Your task to perform on an android device: stop showing notifications on the lock screen Image 0: 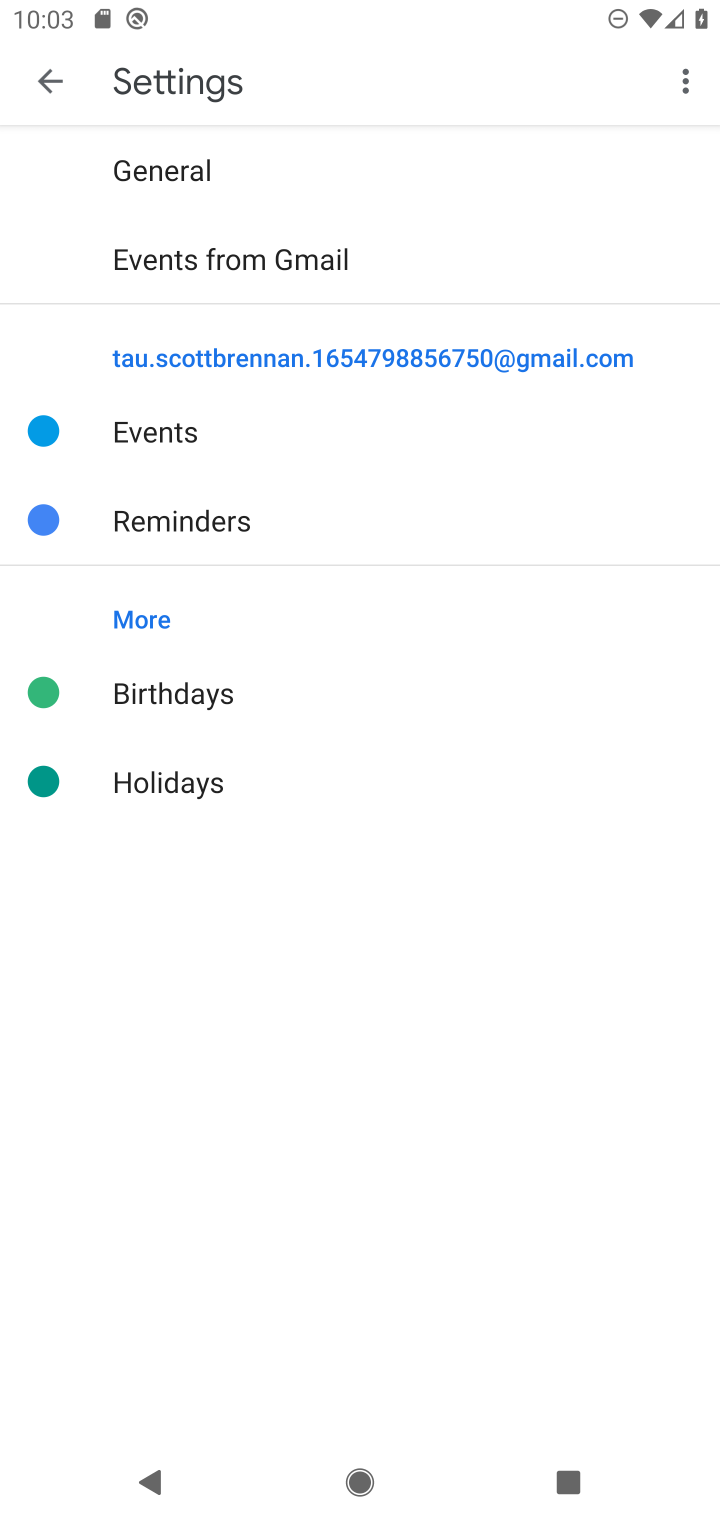
Step 0: press home button
Your task to perform on an android device: stop showing notifications on the lock screen Image 1: 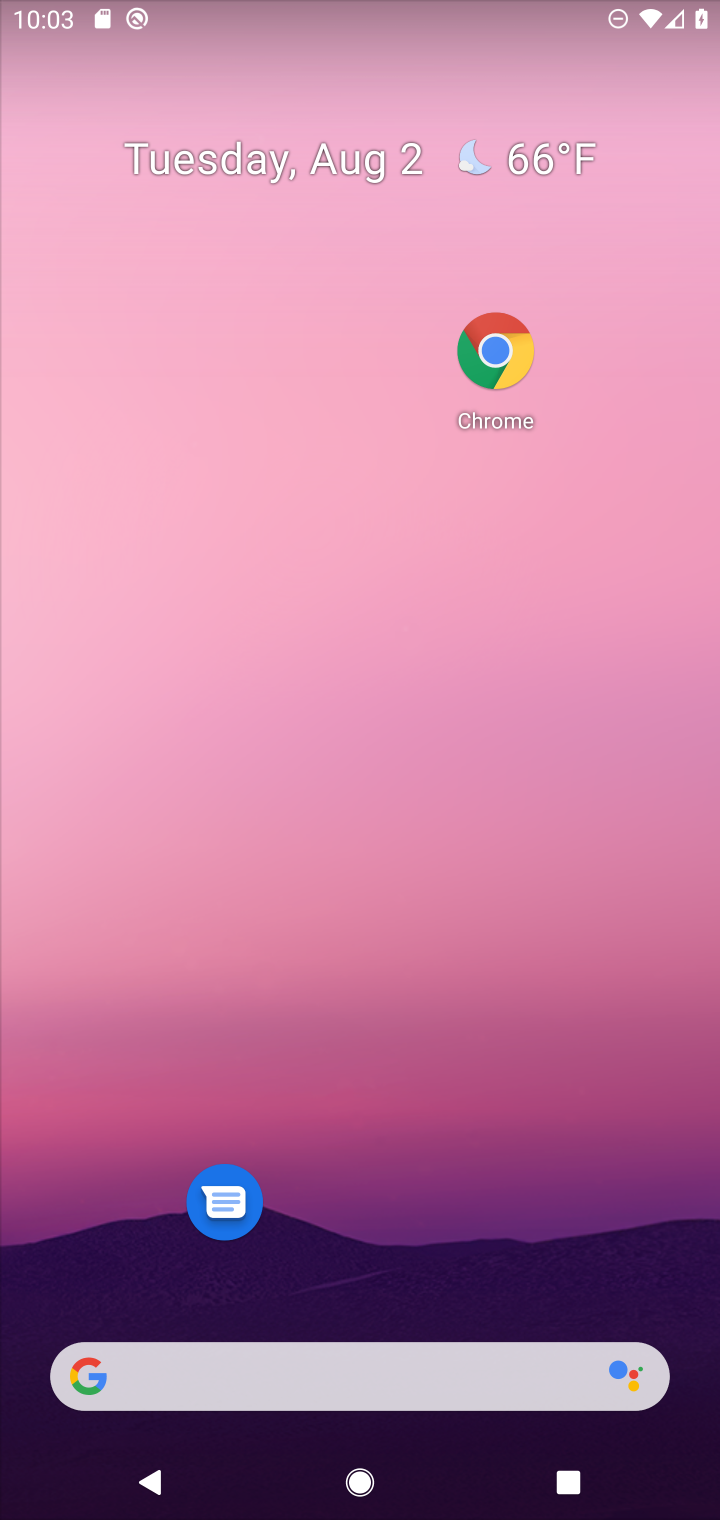
Step 1: drag from (385, 1302) to (372, 35)
Your task to perform on an android device: stop showing notifications on the lock screen Image 2: 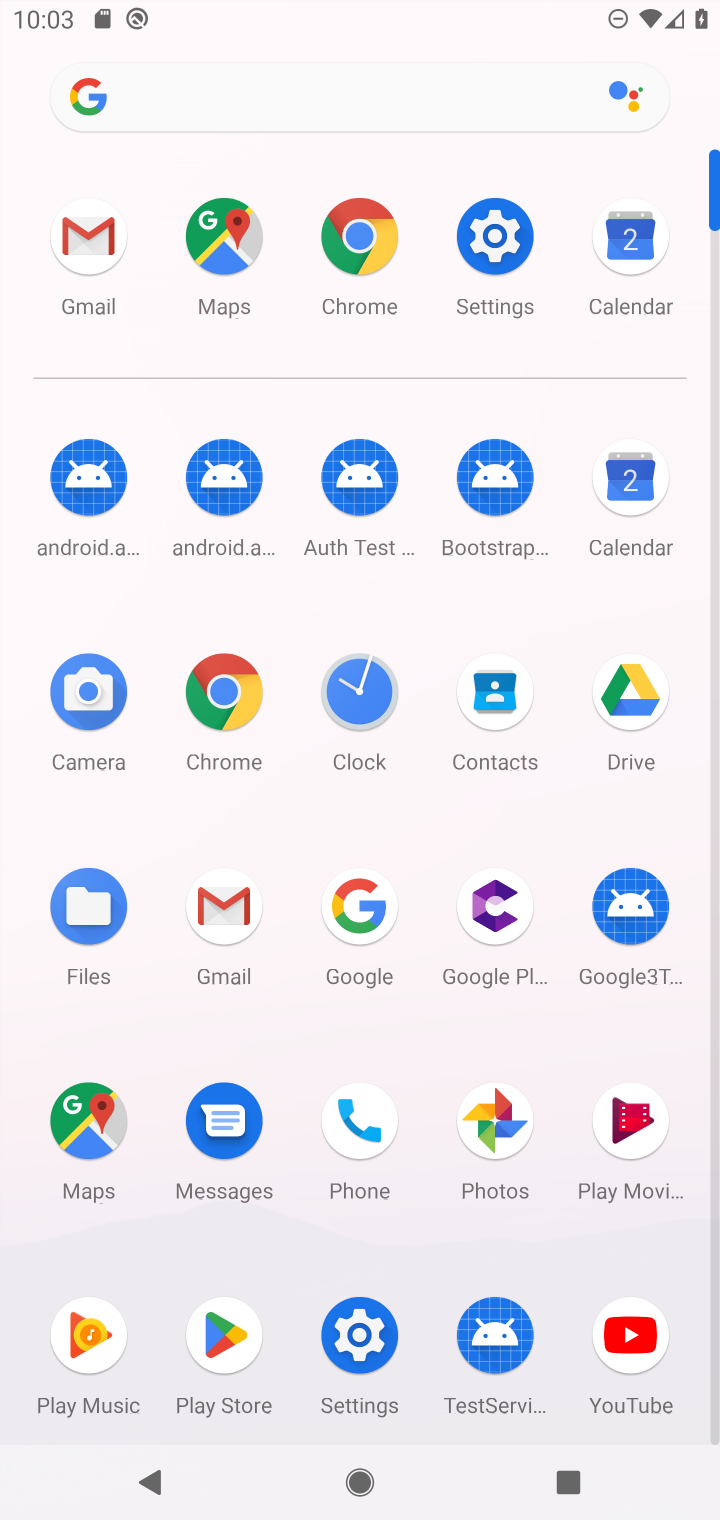
Step 2: click (495, 236)
Your task to perform on an android device: stop showing notifications on the lock screen Image 3: 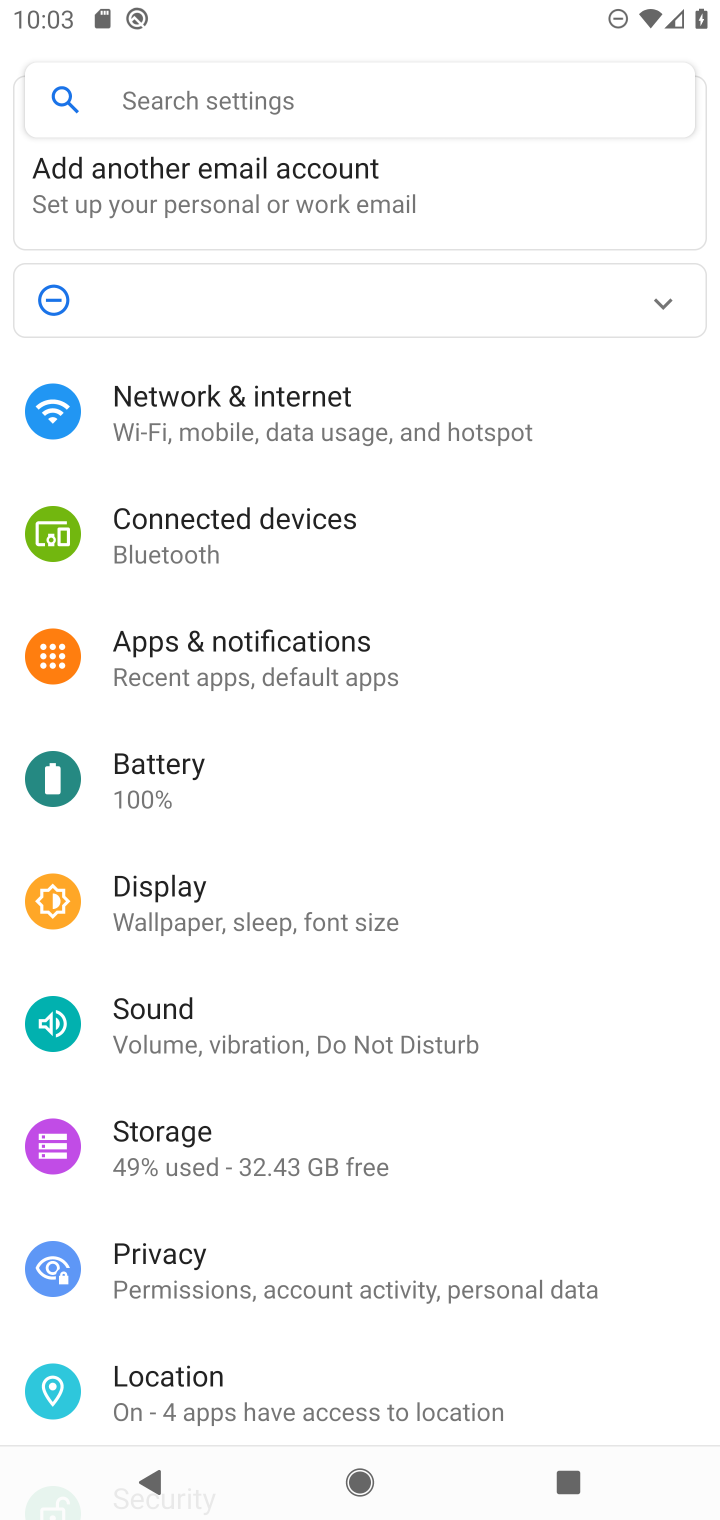
Step 3: click (225, 666)
Your task to perform on an android device: stop showing notifications on the lock screen Image 4: 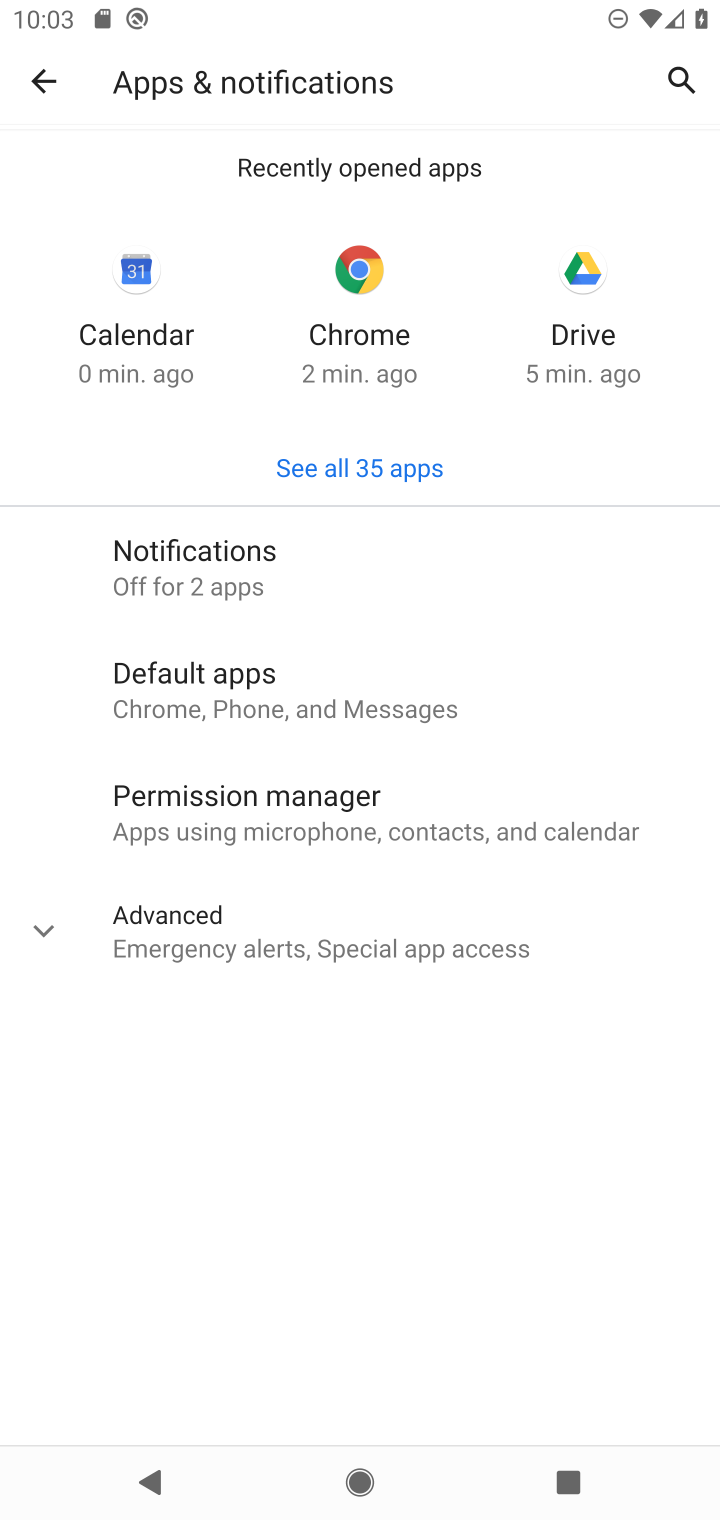
Step 4: click (190, 578)
Your task to perform on an android device: stop showing notifications on the lock screen Image 5: 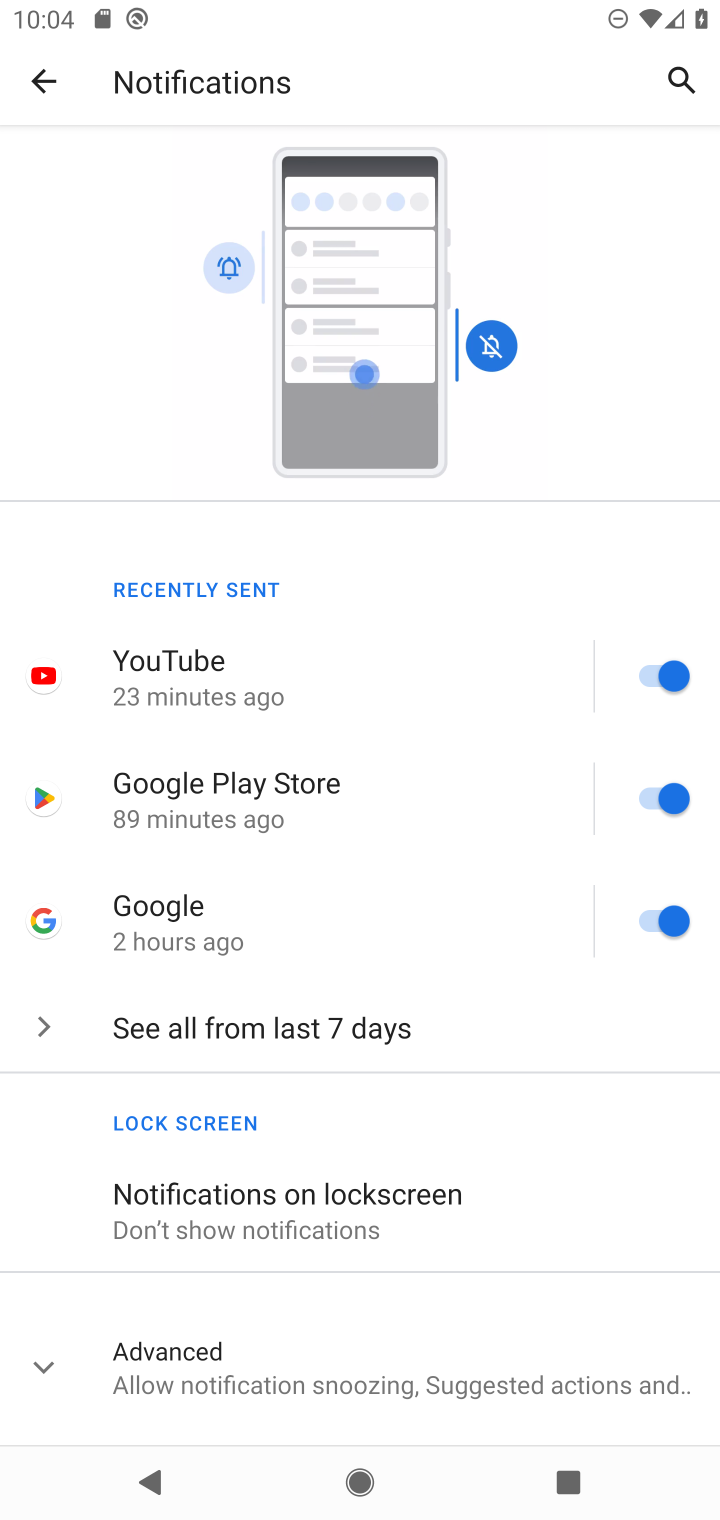
Step 5: click (253, 1207)
Your task to perform on an android device: stop showing notifications on the lock screen Image 6: 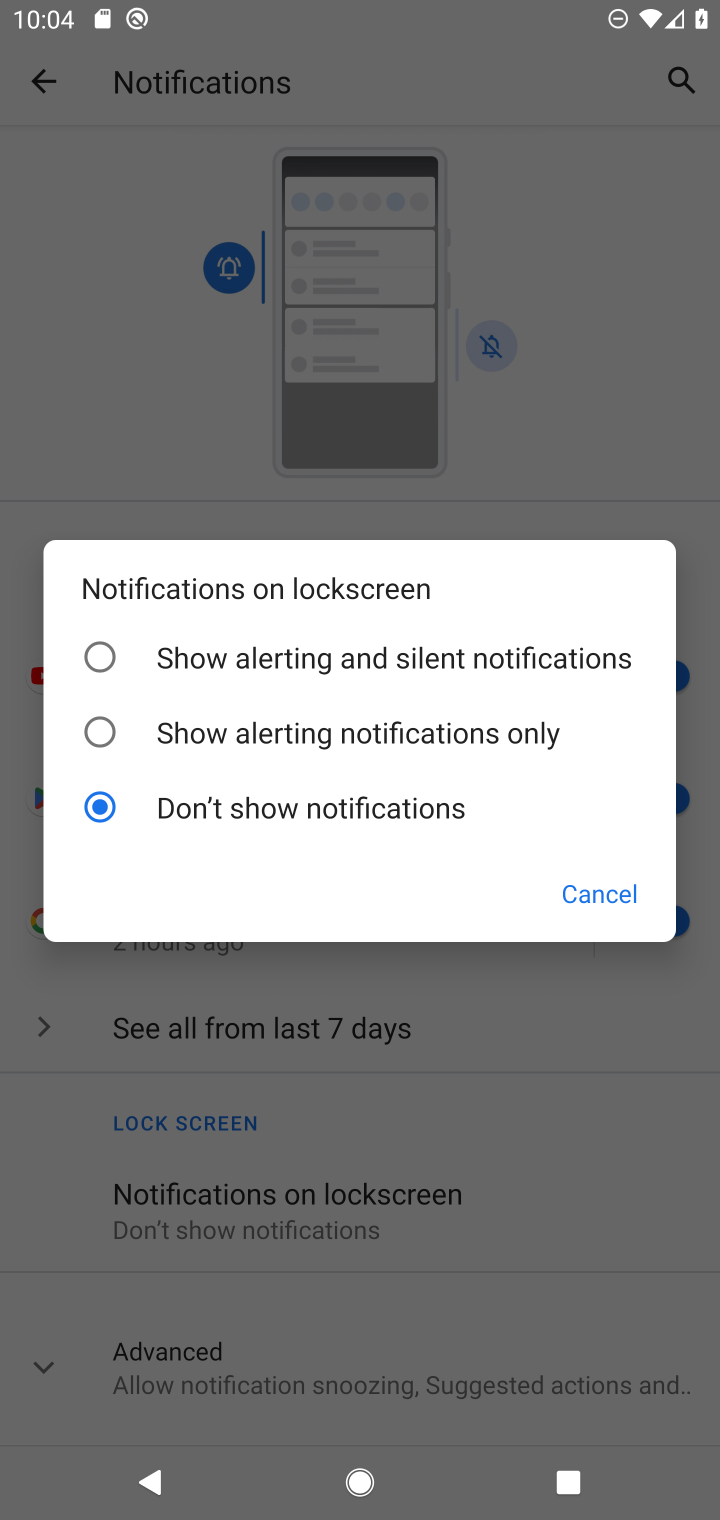
Step 6: task complete